Your task to perform on an android device: turn off location Image 0: 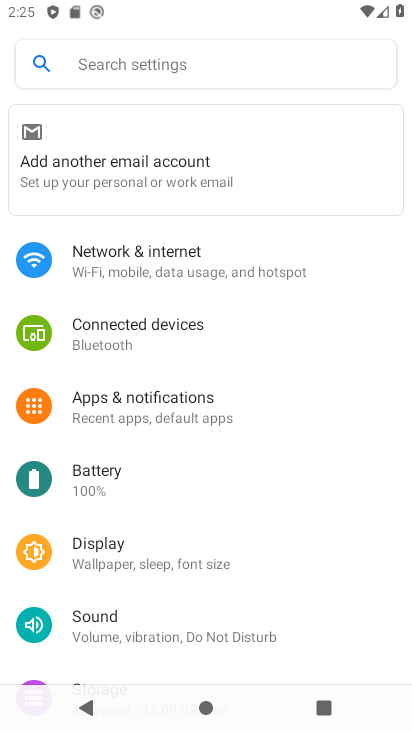
Step 0: drag from (197, 588) to (201, 253)
Your task to perform on an android device: turn off location Image 1: 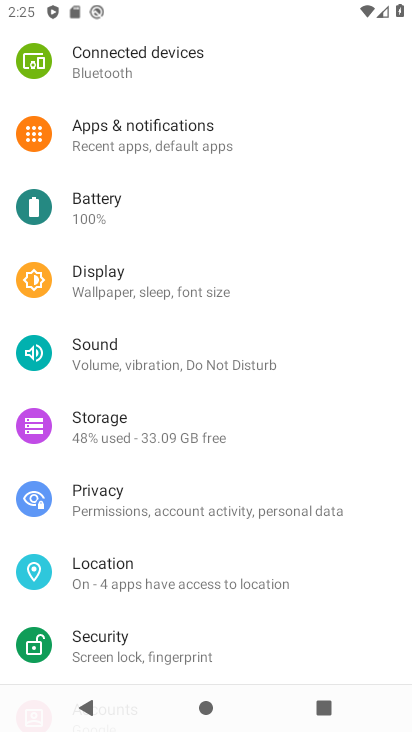
Step 1: click (205, 576)
Your task to perform on an android device: turn off location Image 2: 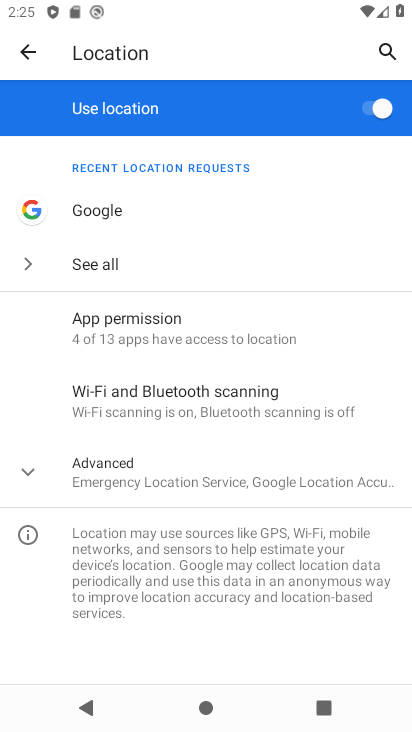
Step 2: click (370, 104)
Your task to perform on an android device: turn off location Image 3: 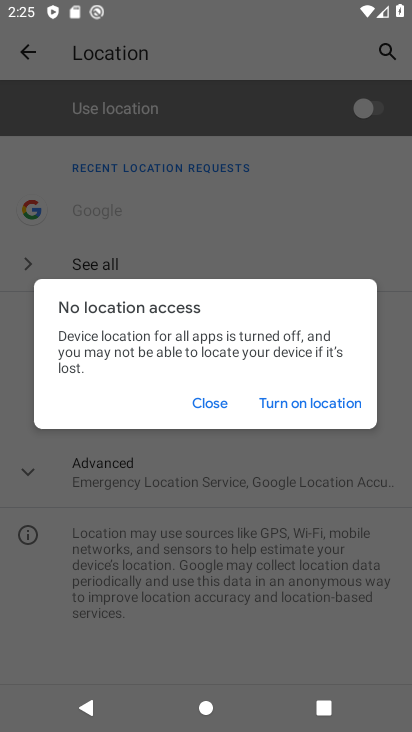
Step 3: click (220, 403)
Your task to perform on an android device: turn off location Image 4: 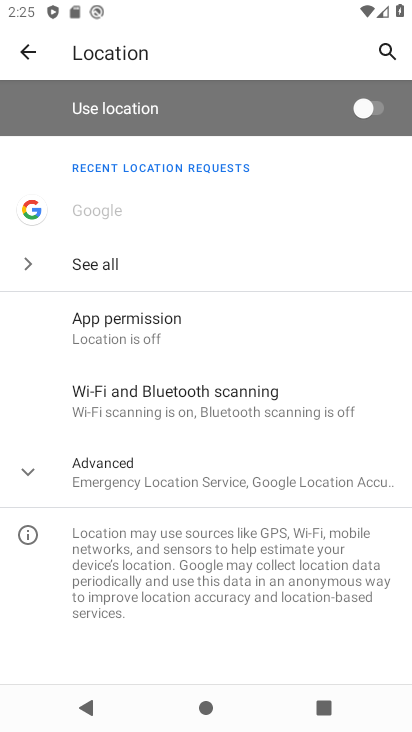
Step 4: task complete